Your task to perform on an android device: check storage Image 0: 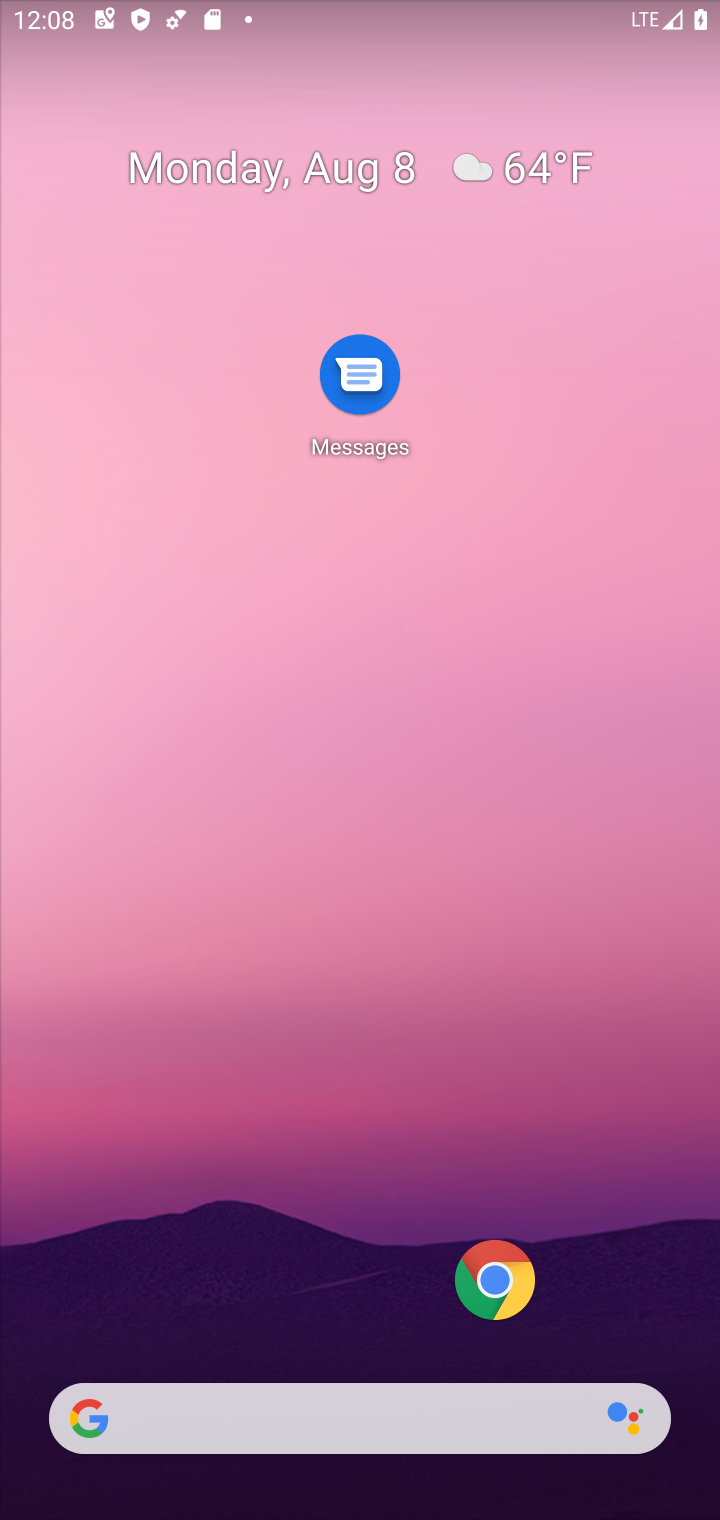
Step 0: drag from (265, 1215) to (293, 57)
Your task to perform on an android device: check storage Image 1: 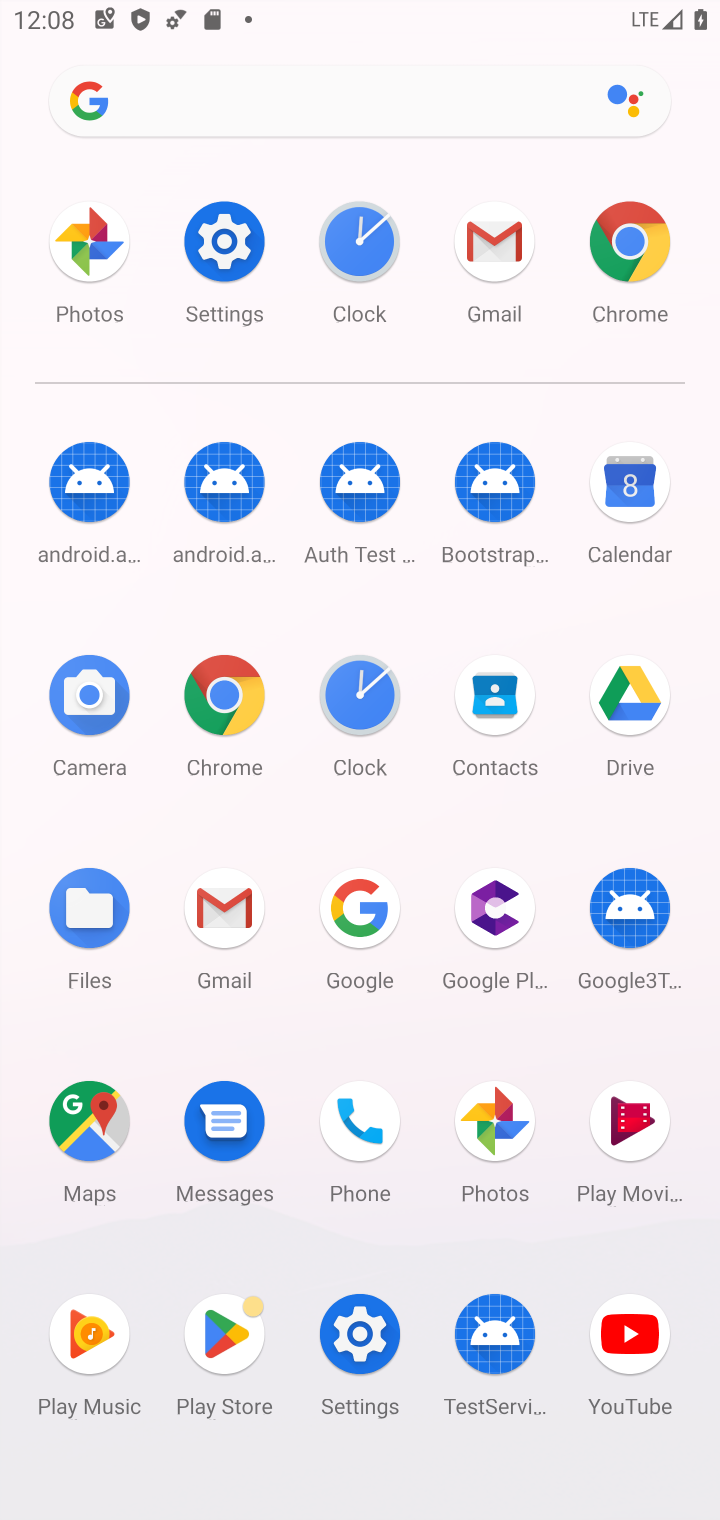
Step 1: click (227, 263)
Your task to perform on an android device: check storage Image 2: 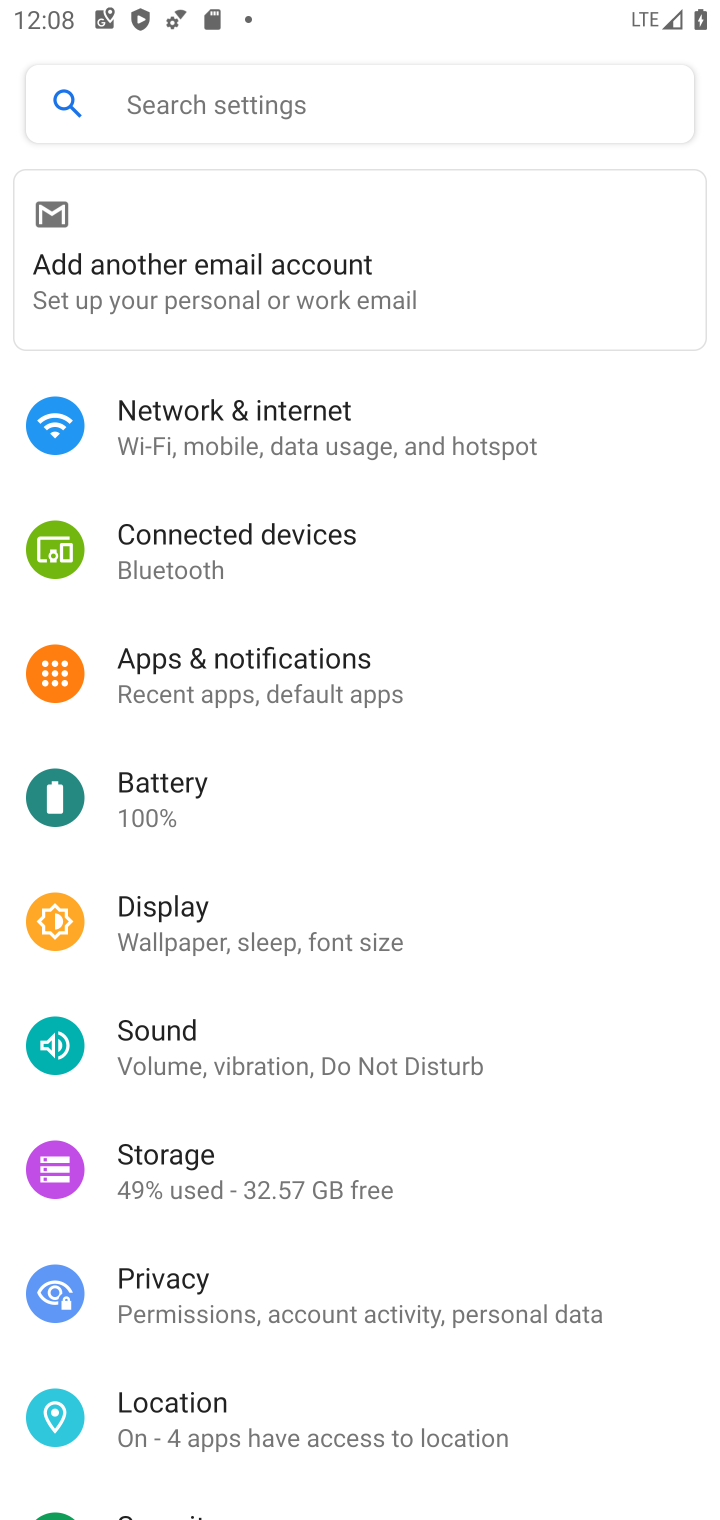
Step 2: click (198, 1159)
Your task to perform on an android device: check storage Image 3: 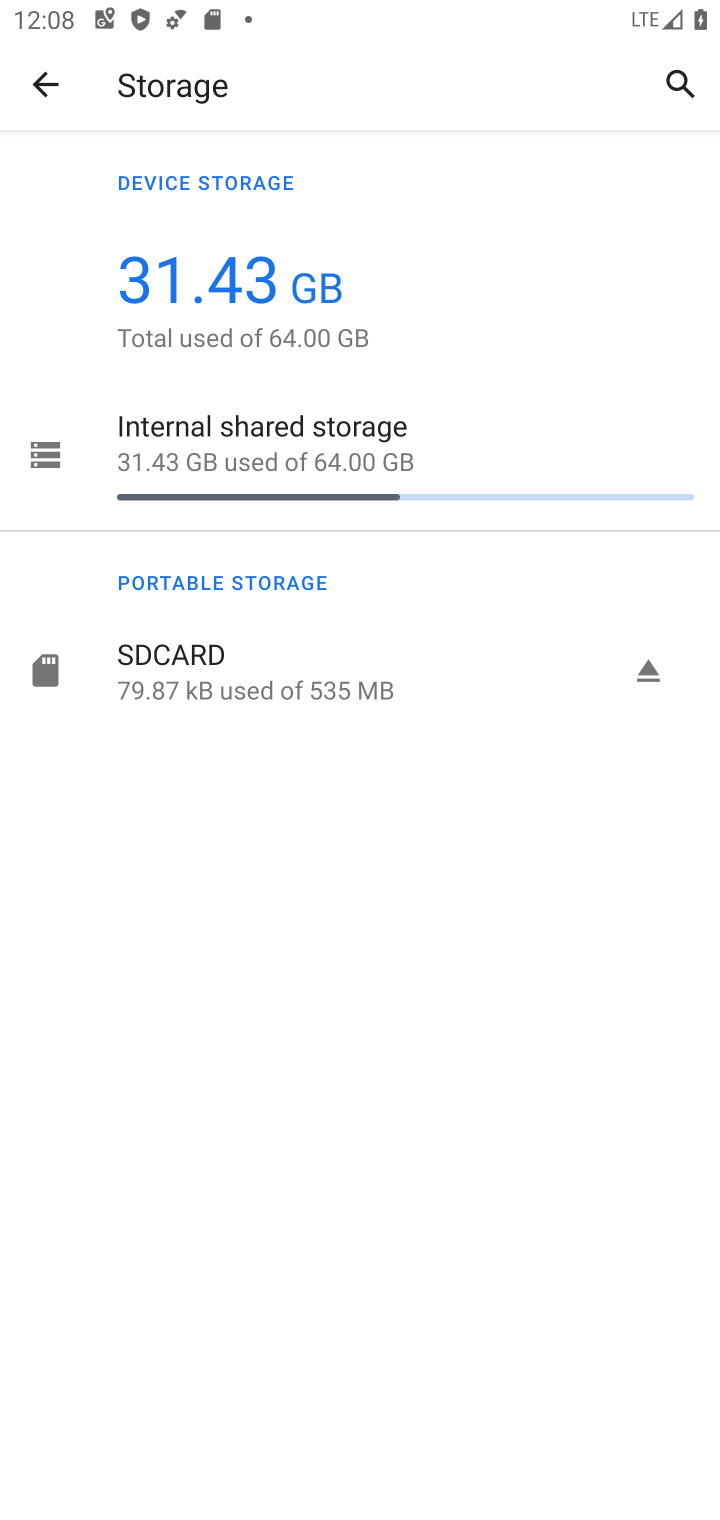
Step 3: task complete